Your task to perform on an android device: Toggle the flashlight Image 0: 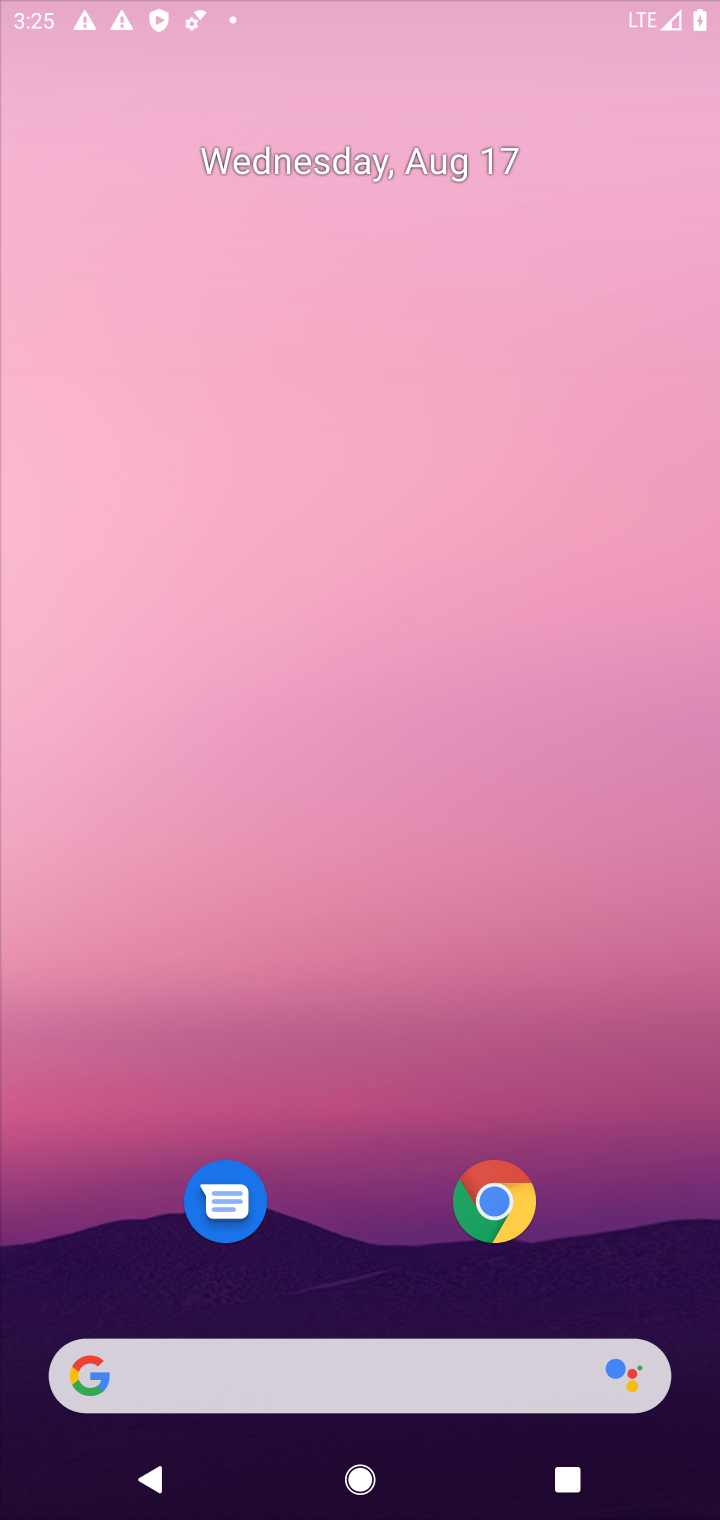
Step 0: task complete